Your task to perform on an android device: turn pop-ups on in chrome Image 0: 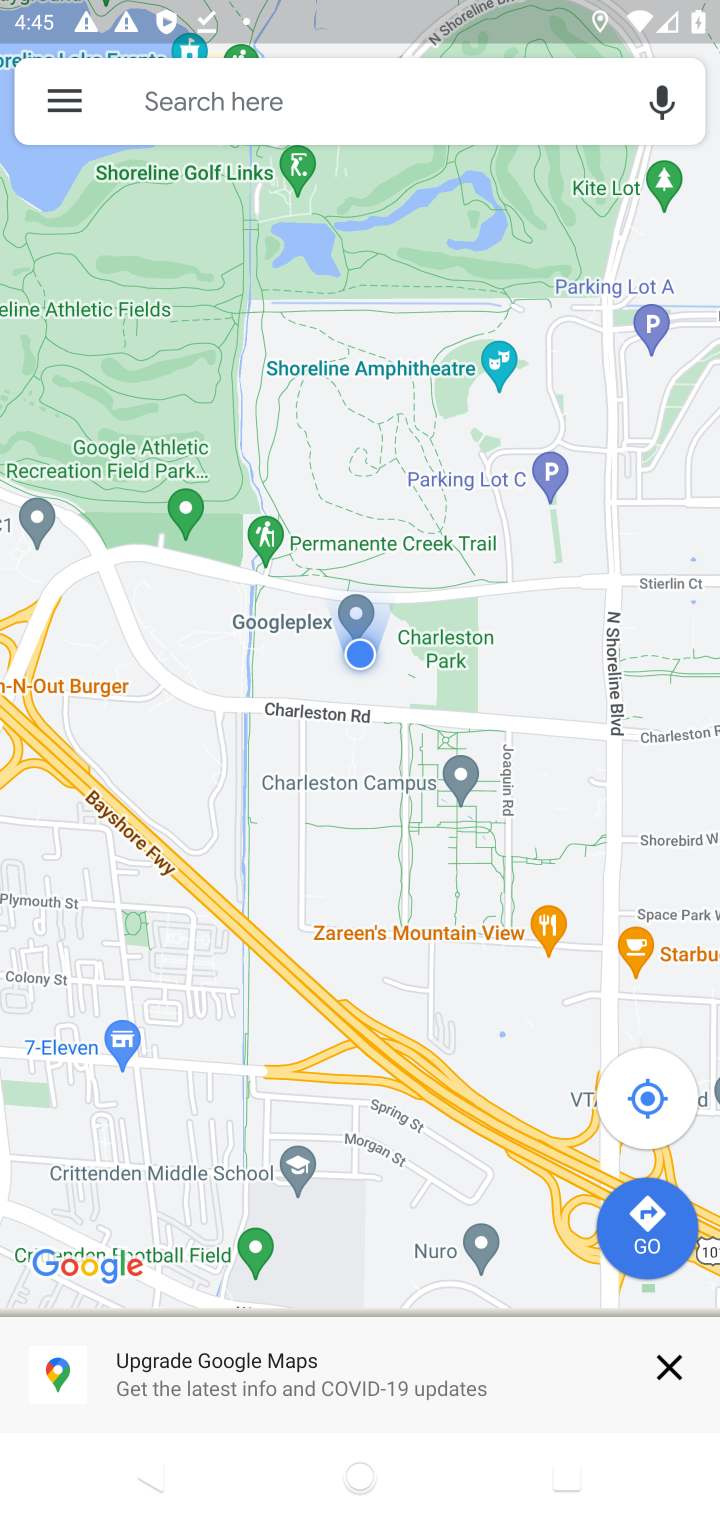
Step 0: press home button
Your task to perform on an android device: turn pop-ups on in chrome Image 1: 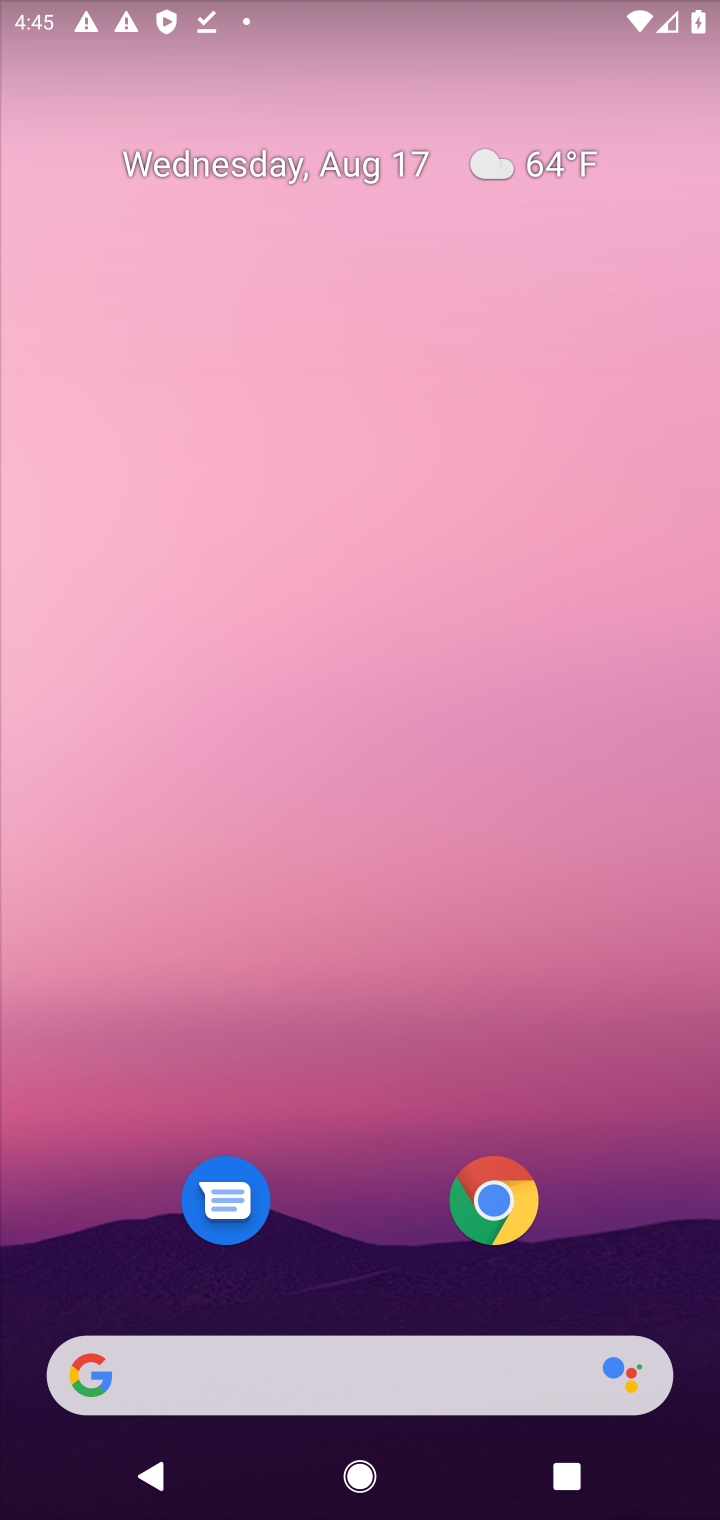
Step 1: click (496, 1204)
Your task to perform on an android device: turn pop-ups on in chrome Image 2: 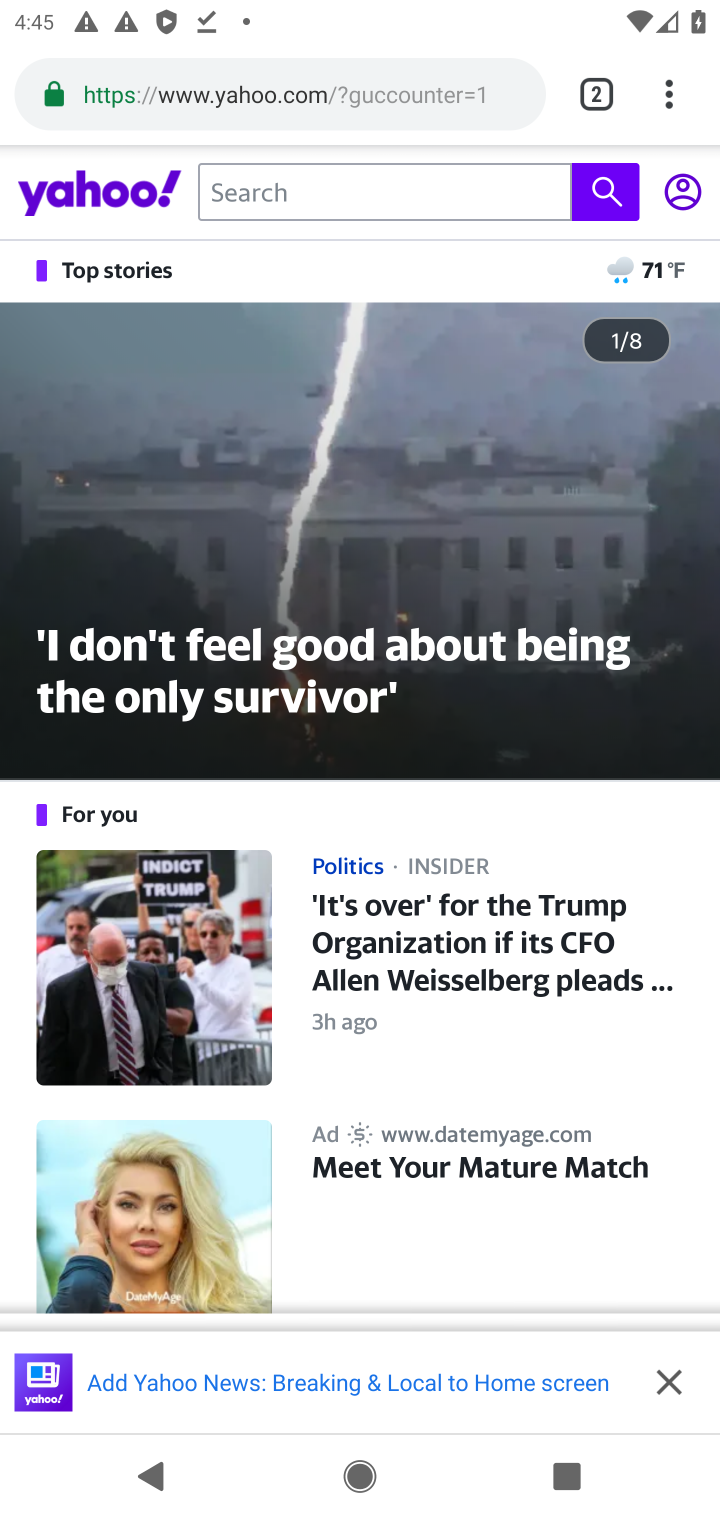
Step 2: drag from (671, 115) to (324, 1149)
Your task to perform on an android device: turn pop-ups on in chrome Image 3: 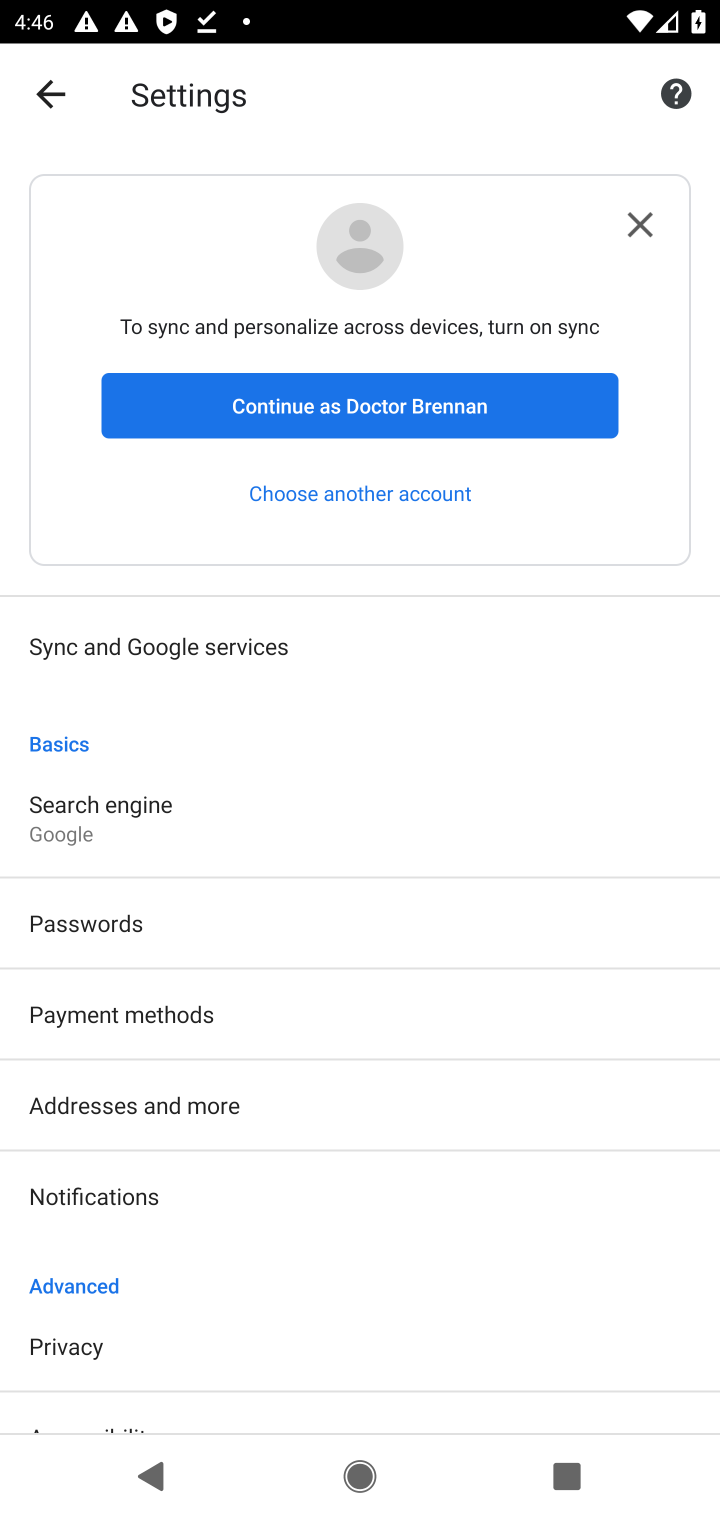
Step 3: drag from (108, 1274) to (108, 593)
Your task to perform on an android device: turn pop-ups on in chrome Image 4: 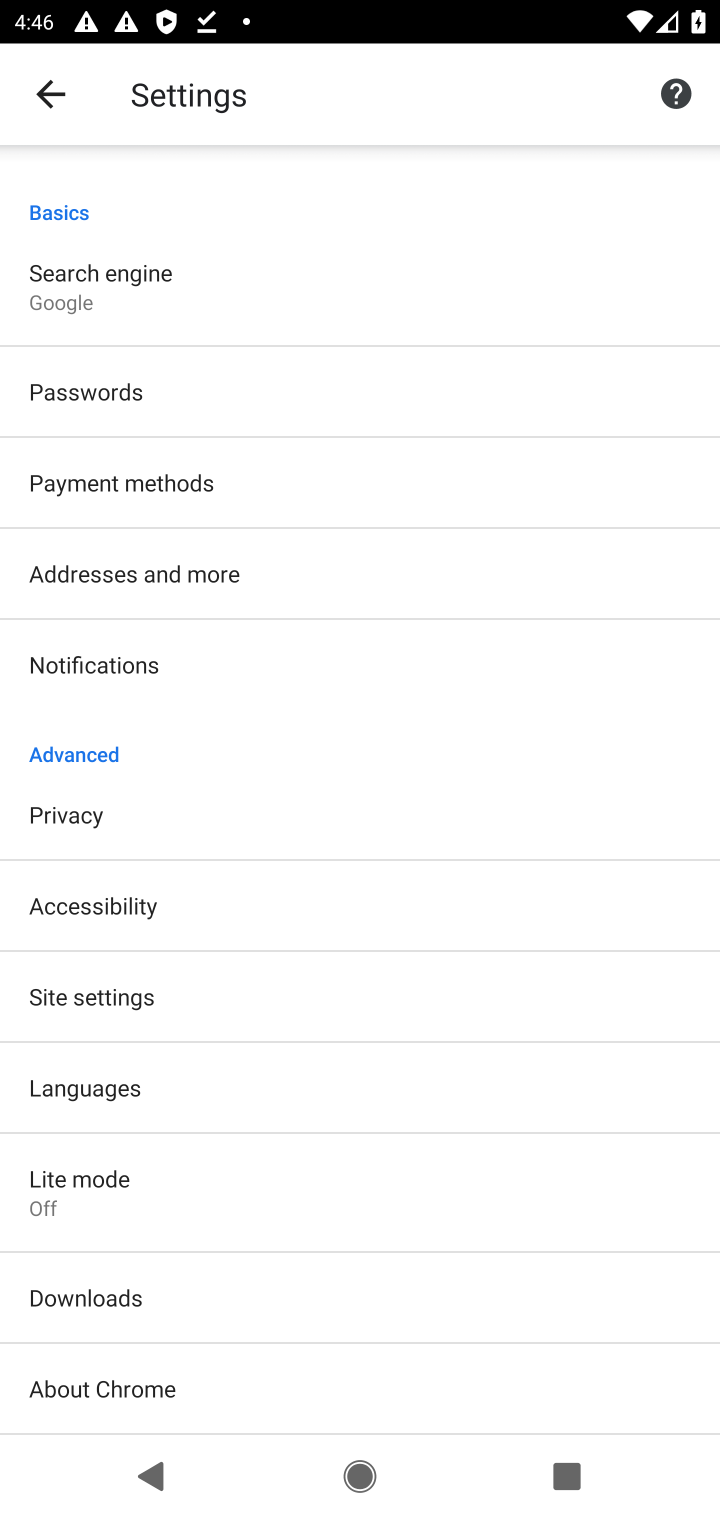
Step 4: click (112, 996)
Your task to perform on an android device: turn pop-ups on in chrome Image 5: 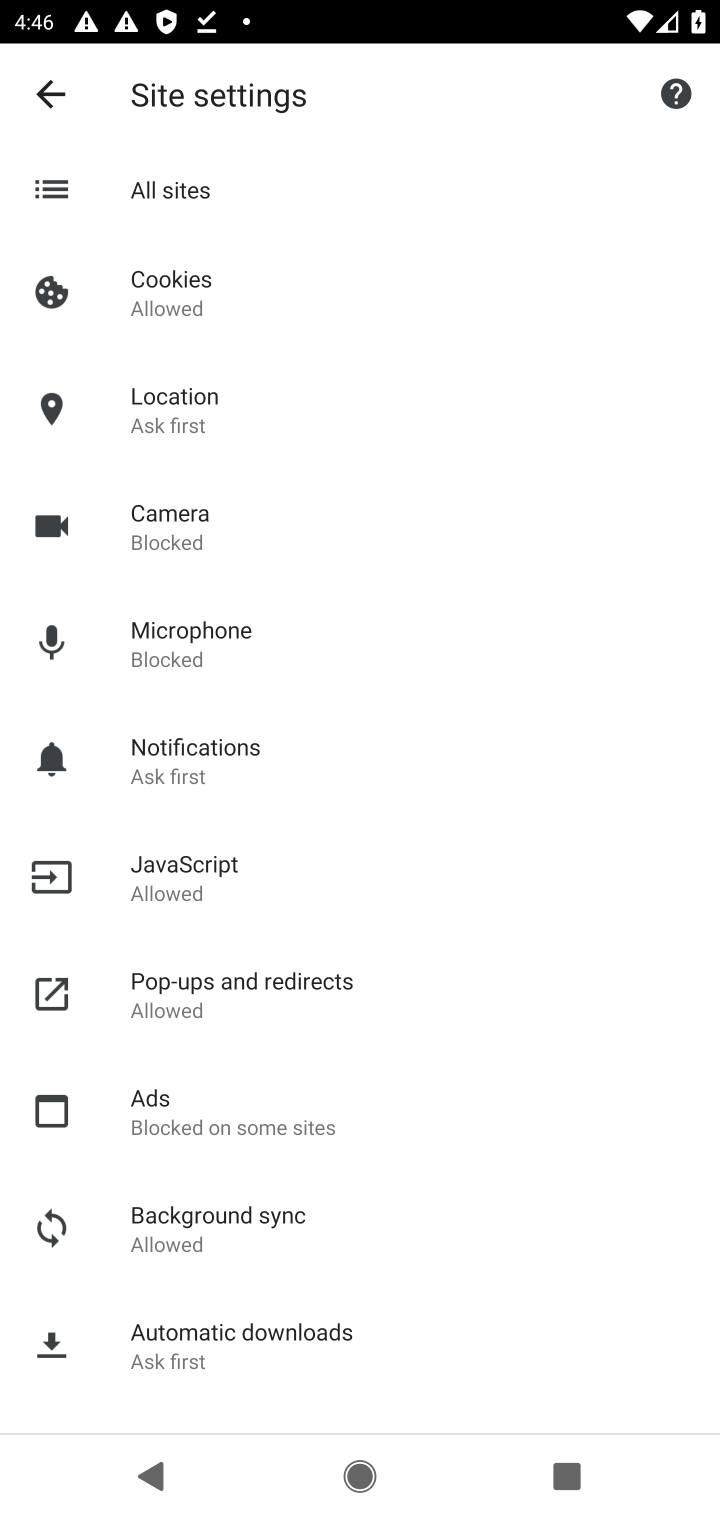
Step 5: click (152, 982)
Your task to perform on an android device: turn pop-ups on in chrome Image 6: 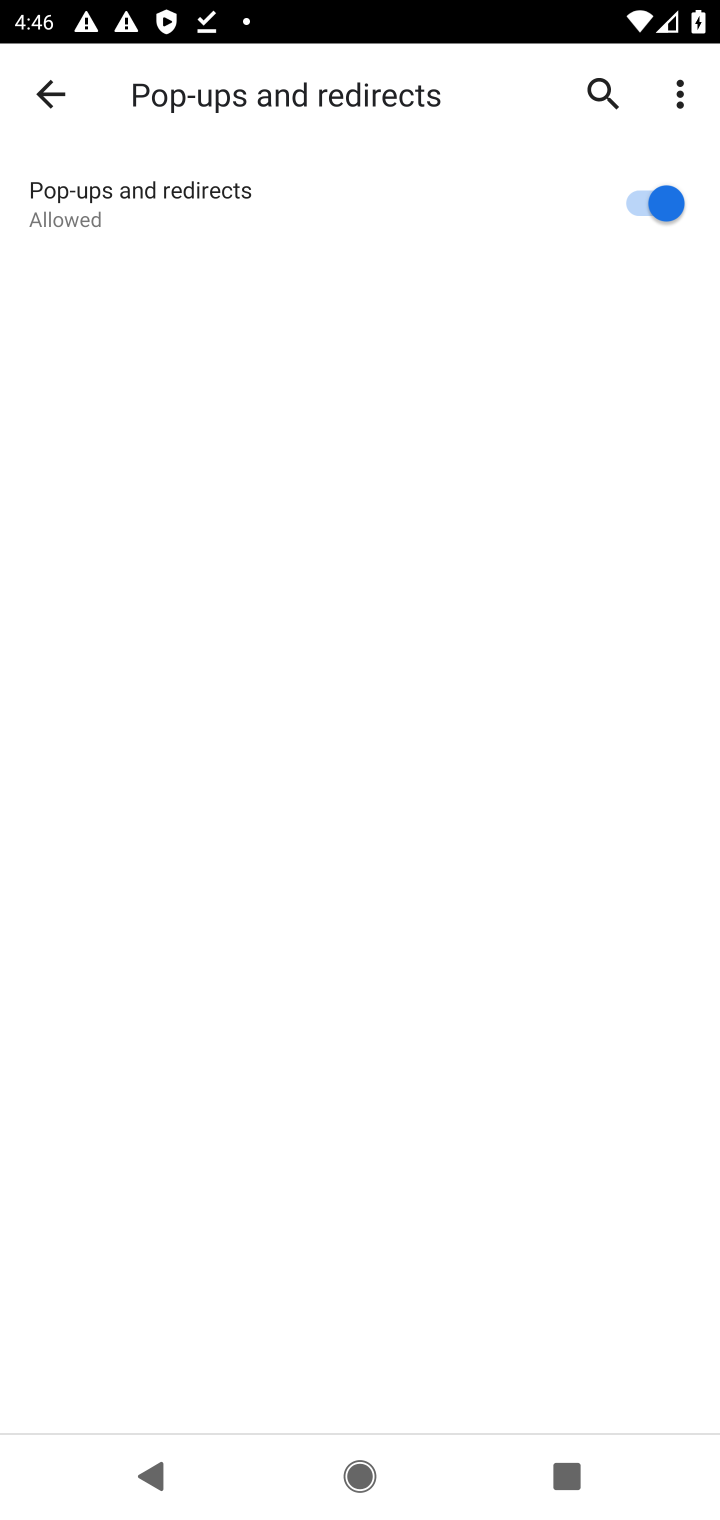
Step 6: task complete